Your task to perform on an android device: Add macbook pro 13 inch to the cart on walmart.com Image 0: 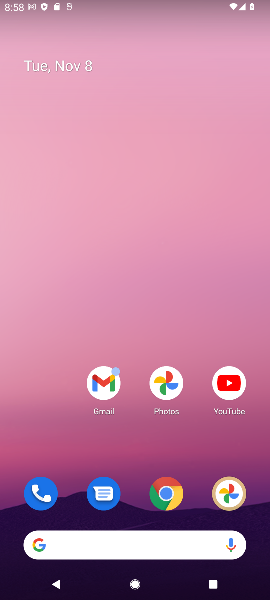
Step 0: click (166, 496)
Your task to perform on an android device: Add macbook pro 13 inch to the cart on walmart.com Image 1: 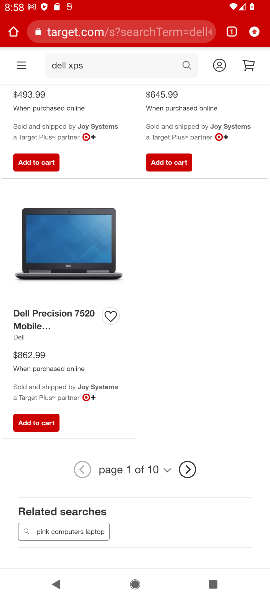
Step 1: click (86, 36)
Your task to perform on an android device: Add macbook pro 13 inch to the cart on walmart.com Image 2: 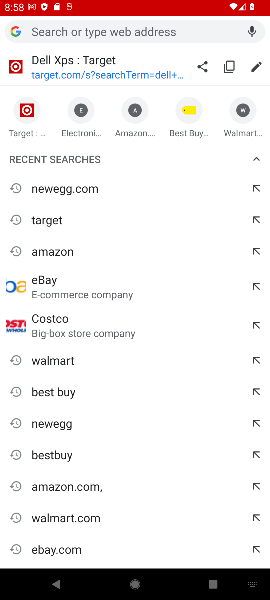
Step 2: click (77, 519)
Your task to perform on an android device: Add macbook pro 13 inch to the cart on walmart.com Image 3: 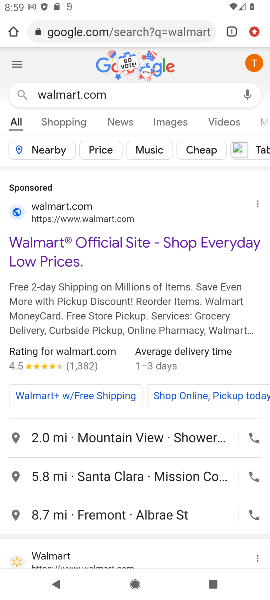
Step 3: drag from (42, 426) to (56, 225)
Your task to perform on an android device: Add macbook pro 13 inch to the cart on walmart.com Image 4: 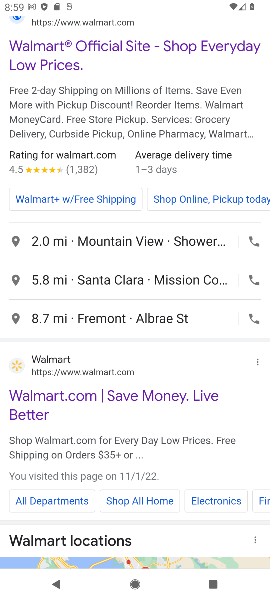
Step 4: click (34, 386)
Your task to perform on an android device: Add macbook pro 13 inch to the cart on walmart.com Image 5: 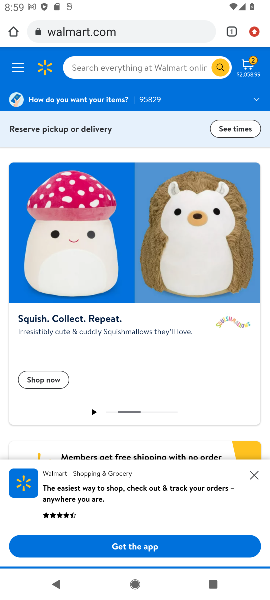
Step 5: click (97, 65)
Your task to perform on an android device: Add macbook pro 13 inch to the cart on walmart.com Image 6: 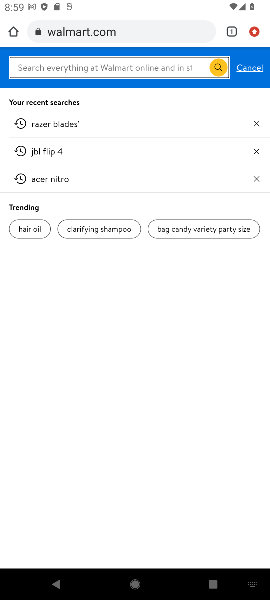
Step 6: type "macbook pro 13 inch"
Your task to perform on an android device: Add macbook pro 13 inch to the cart on walmart.com Image 7: 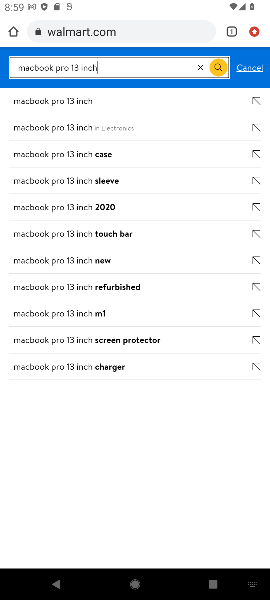
Step 7: click (35, 107)
Your task to perform on an android device: Add macbook pro 13 inch to the cart on walmart.com Image 8: 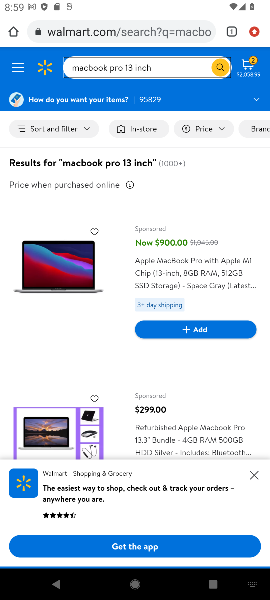
Step 8: drag from (106, 345) to (124, 221)
Your task to perform on an android device: Add macbook pro 13 inch to the cart on walmart.com Image 9: 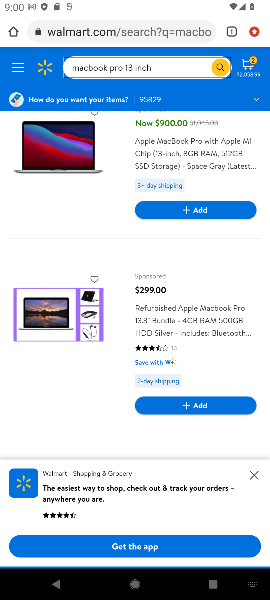
Step 9: click (72, 180)
Your task to perform on an android device: Add macbook pro 13 inch to the cart on walmart.com Image 10: 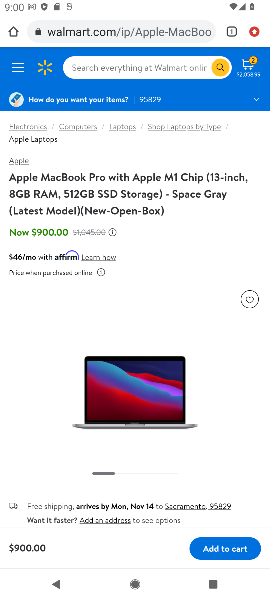
Step 10: drag from (113, 318) to (118, 170)
Your task to perform on an android device: Add macbook pro 13 inch to the cart on walmart.com Image 11: 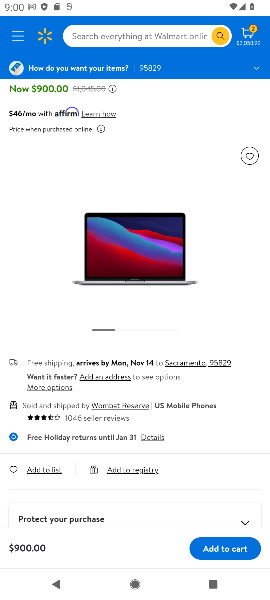
Step 11: click (228, 550)
Your task to perform on an android device: Add macbook pro 13 inch to the cart on walmart.com Image 12: 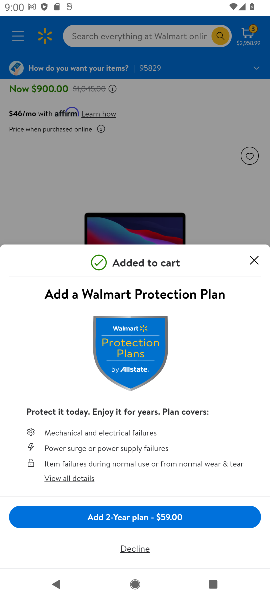
Step 12: task complete